Your task to perform on an android device: Add alienware aurora to the cart on costco.com Image 0: 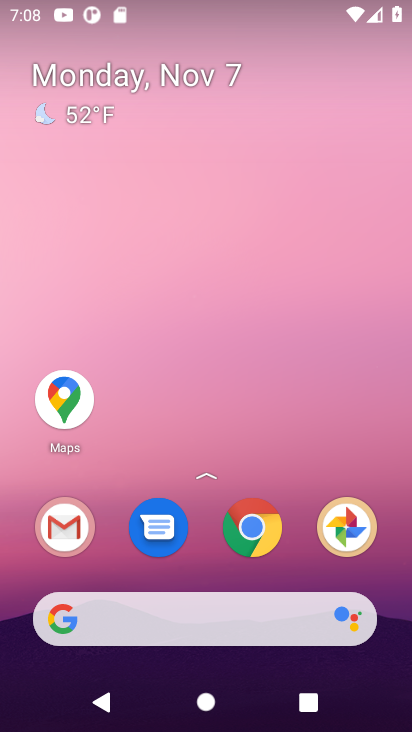
Step 0: click (253, 531)
Your task to perform on an android device: Add alienware aurora to the cart on costco.com Image 1: 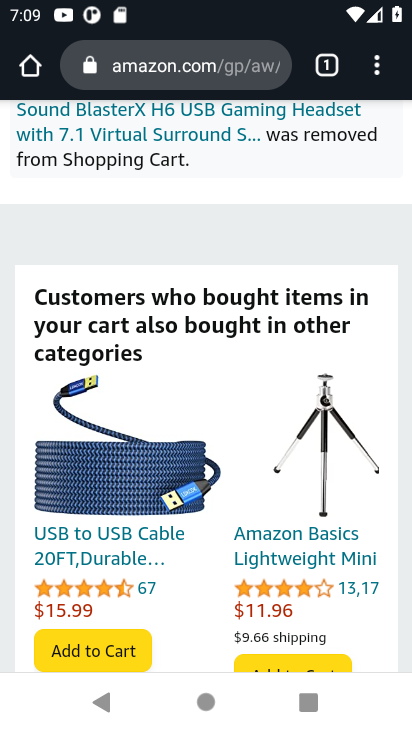
Step 1: click (179, 85)
Your task to perform on an android device: Add alienware aurora to the cart on costco.com Image 2: 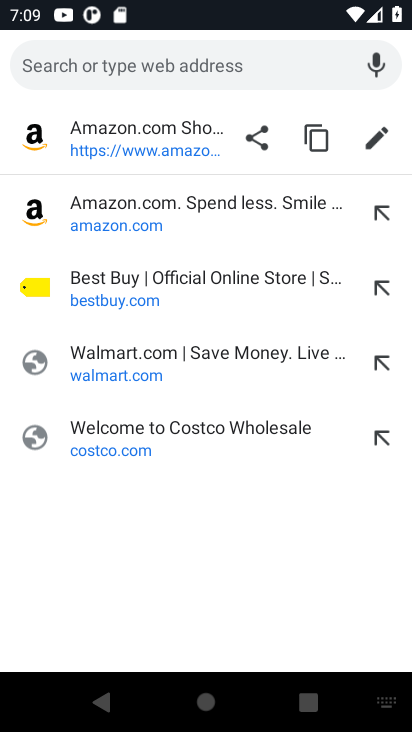
Step 2: type "costco"
Your task to perform on an android device: Add alienware aurora to the cart on costco.com Image 3: 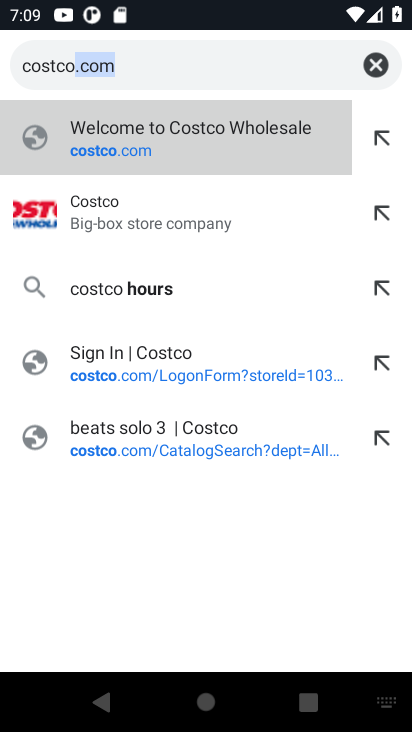
Step 3: click (243, 140)
Your task to perform on an android device: Add alienware aurora to the cart on costco.com Image 4: 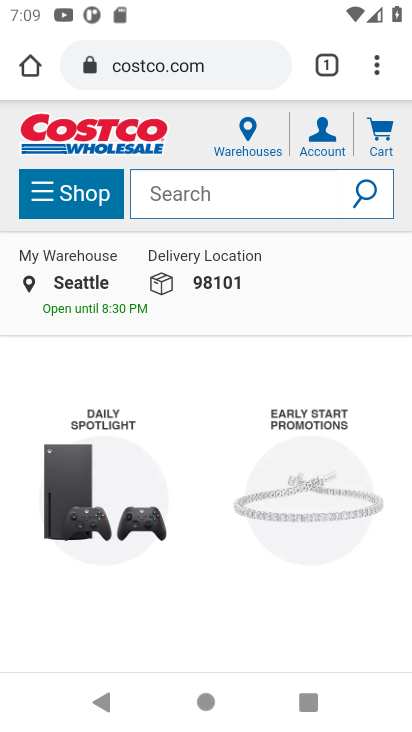
Step 4: click (230, 164)
Your task to perform on an android device: Add alienware aurora to the cart on costco.com Image 5: 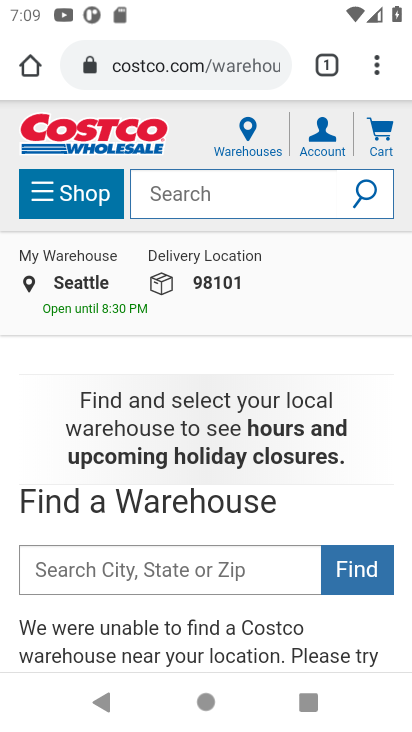
Step 5: type "alienware aurora"
Your task to perform on an android device: Add alienware aurora to the cart on costco.com Image 6: 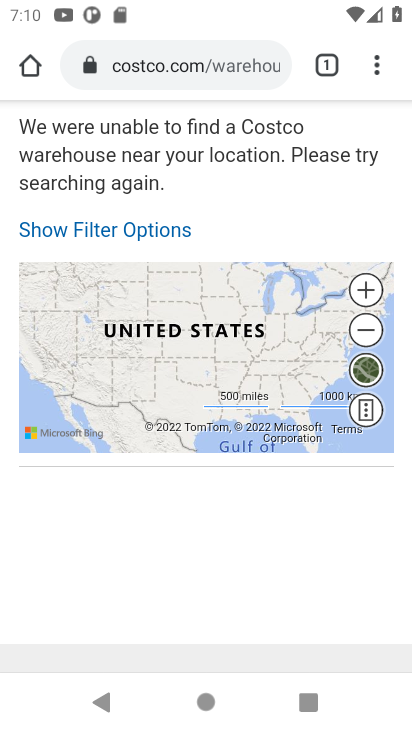
Step 6: task complete